Your task to perform on an android device: Open wifi settings Image 0: 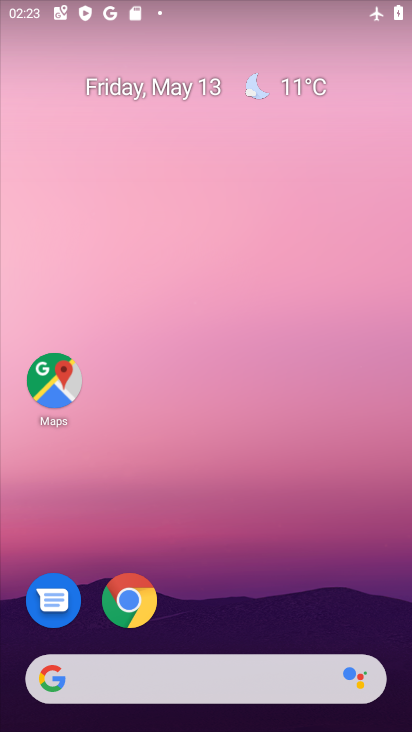
Step 0: drag from (160, 607) to (230, 153)
Your task to perform on an android device: Open wifi settings Image 1: 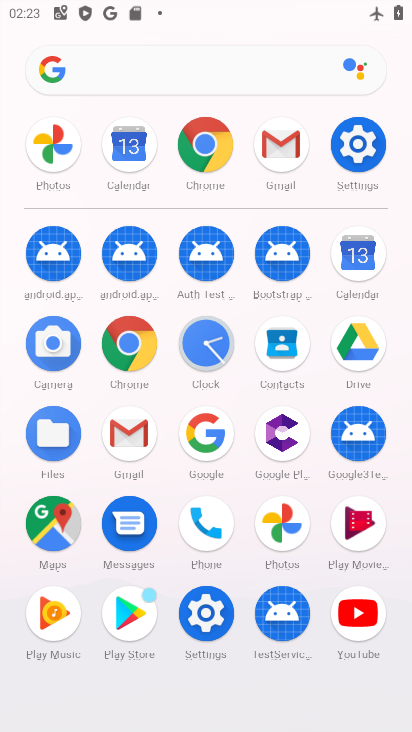
Step 1: click (355, 153)
Your task to perform on an android device: Open wifi settings Image 2: 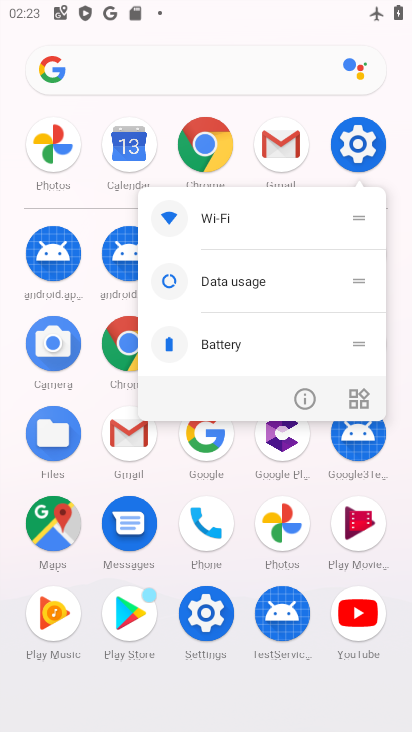
Step 2: click (309, 400)
Your task to perform on an android device: Open wifi settings Image 3: 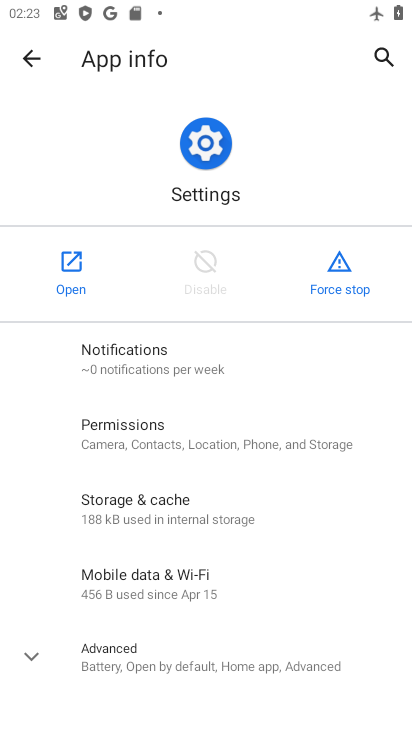
Step 3: click (76, 249)
Your task to perform on an android device: Open wifi settings Image 4: 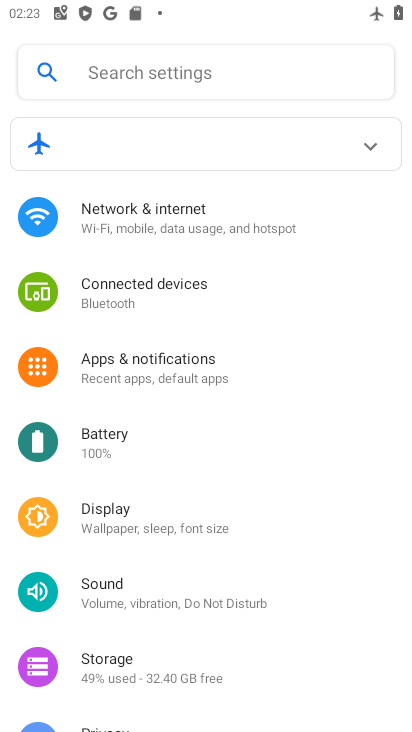
Step 4: click (172, 235)
Your task to perform on an android device: Open wifi settings Image 5: 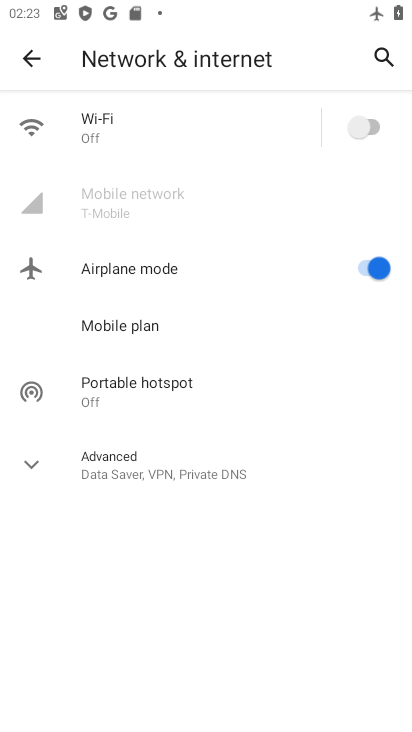
Step 5: click (165, 144)
Your task to perform on an android device: Open wifi settings Image 6: 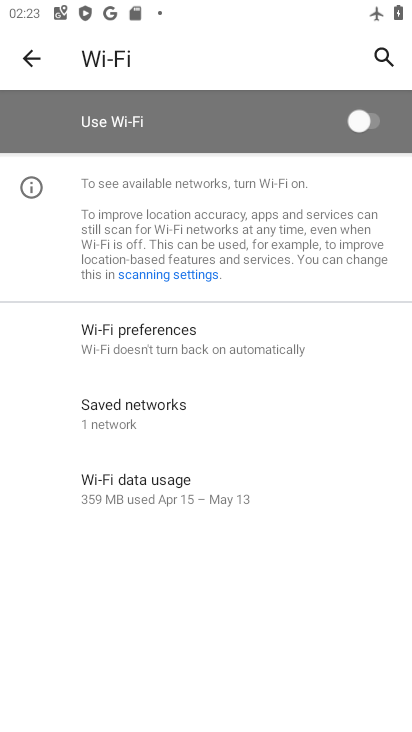
Step 6: task complete